Your task to perform on an android device: see sites visited before in the chrome app Image 0: 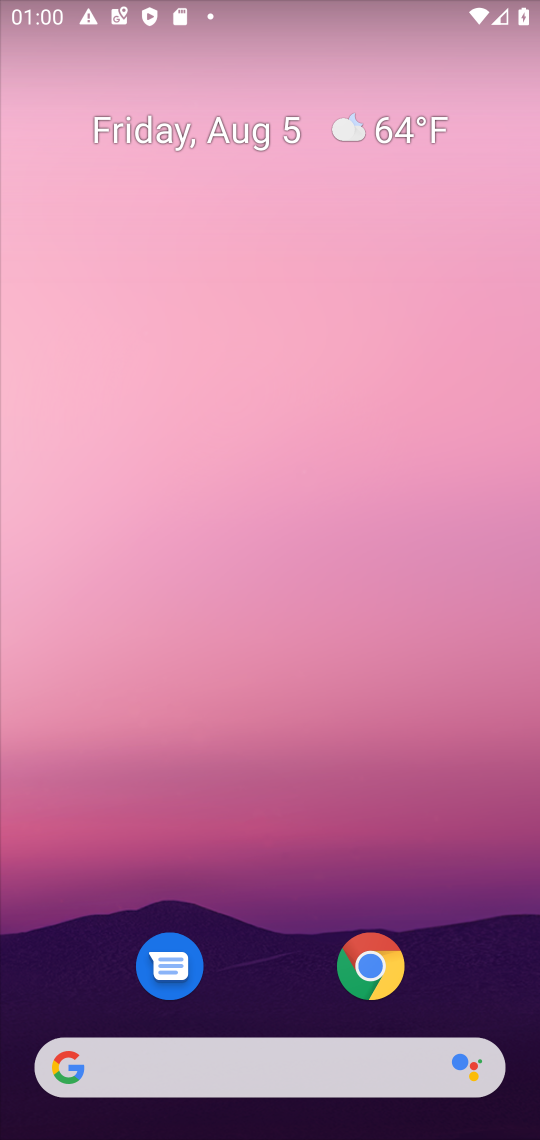
Step 0: click (371, 961)
Your task to perform on an android device: see sites visited before in the chrome app Image 1: 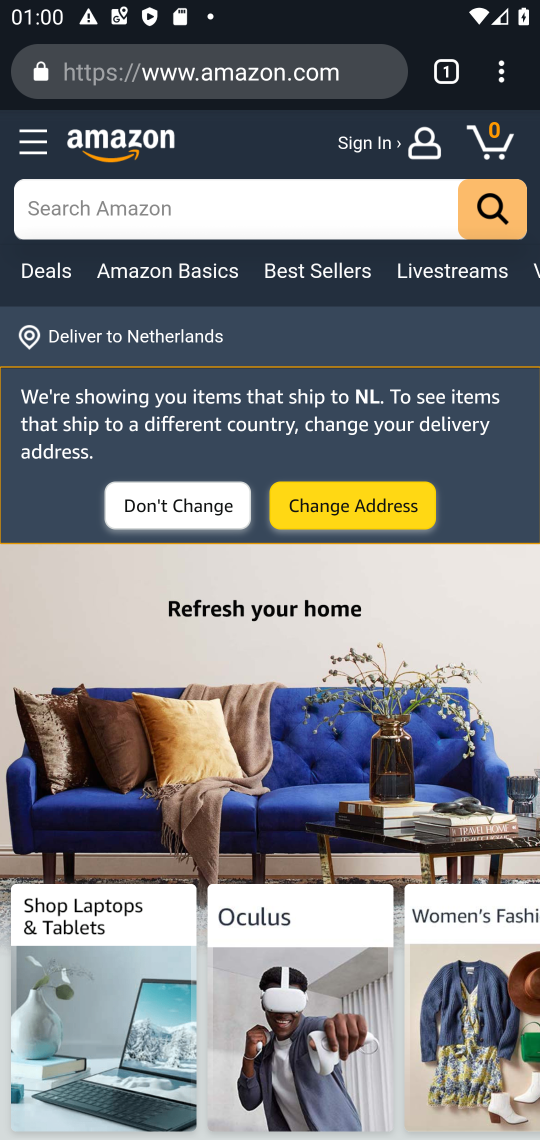
Step 1: click (495, 69)
Your task to perform on an android device: see sites visited before in the chrome app Image 2: 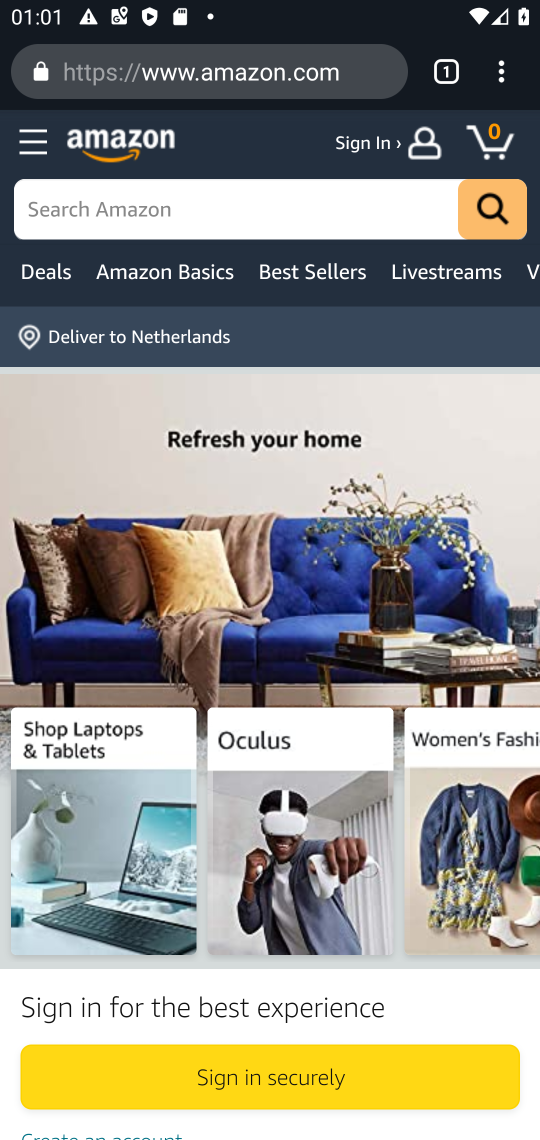
Step 2: click (507, 73)
Your task to perform on an android device: see sites visited before in the chrome app Image 3: 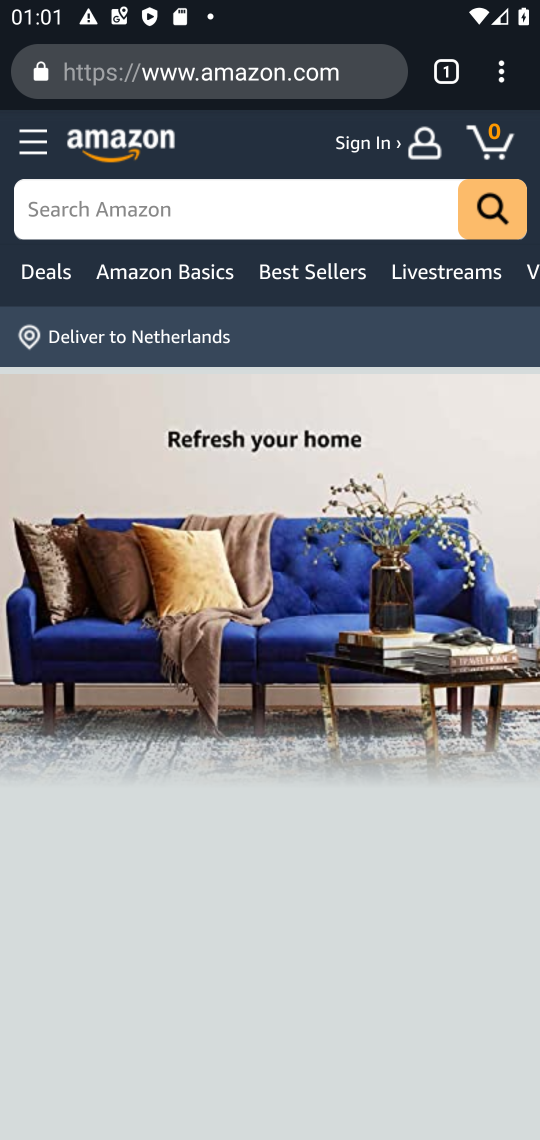
Step 3: click (507, 73)
Your task to perform on an android device: see sites visited before in the chrome app Image 4: 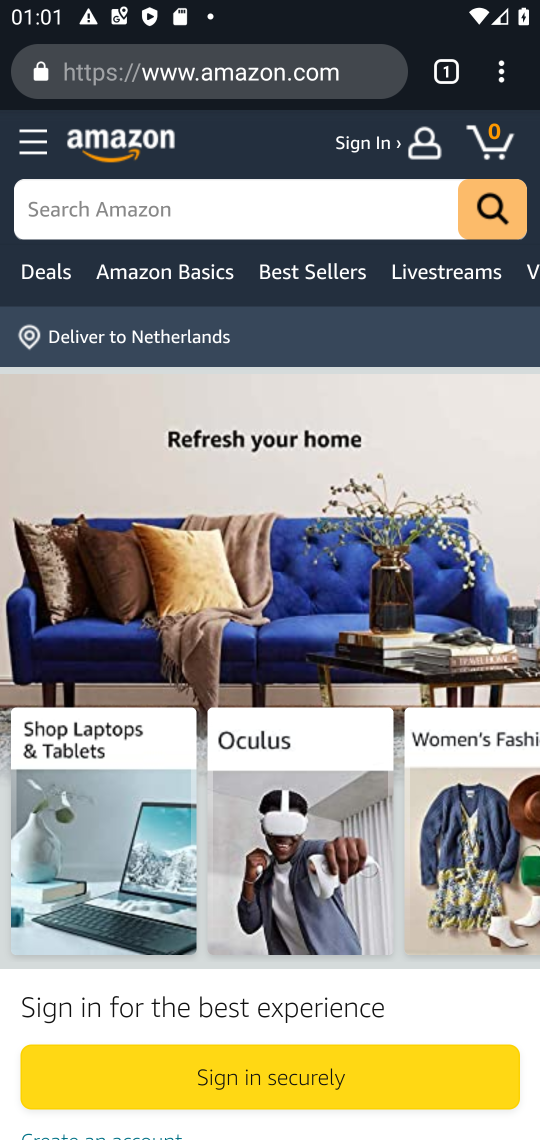
Step 4: click (507, 73)
Your task to perform on an android device: see sites visited before in the chrome app Image 5: 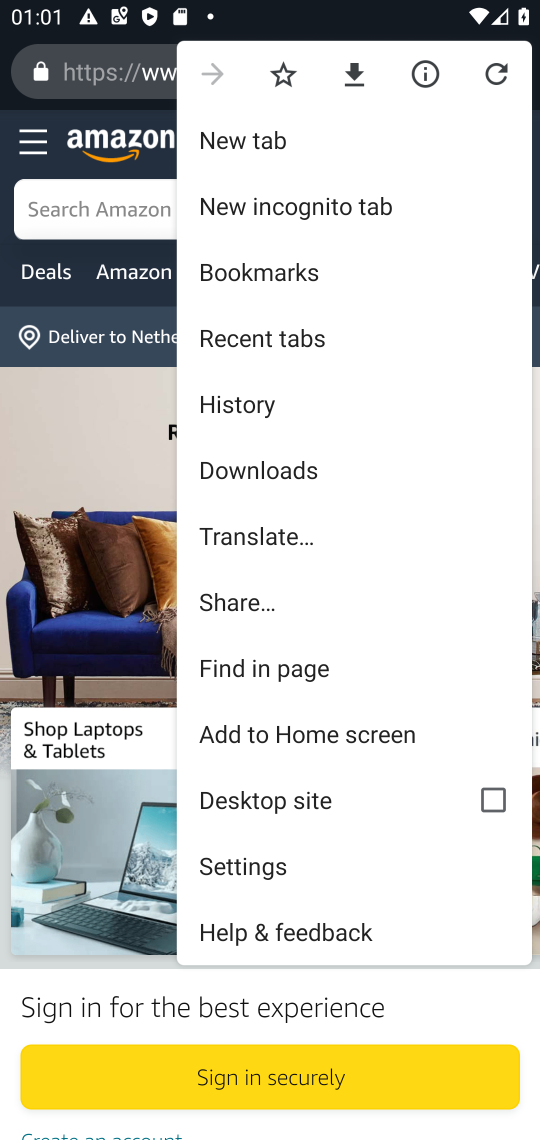
Step 5: click (303, 339)
Your task to perform on an android device: see sites visited before in the chrome app Image 6: 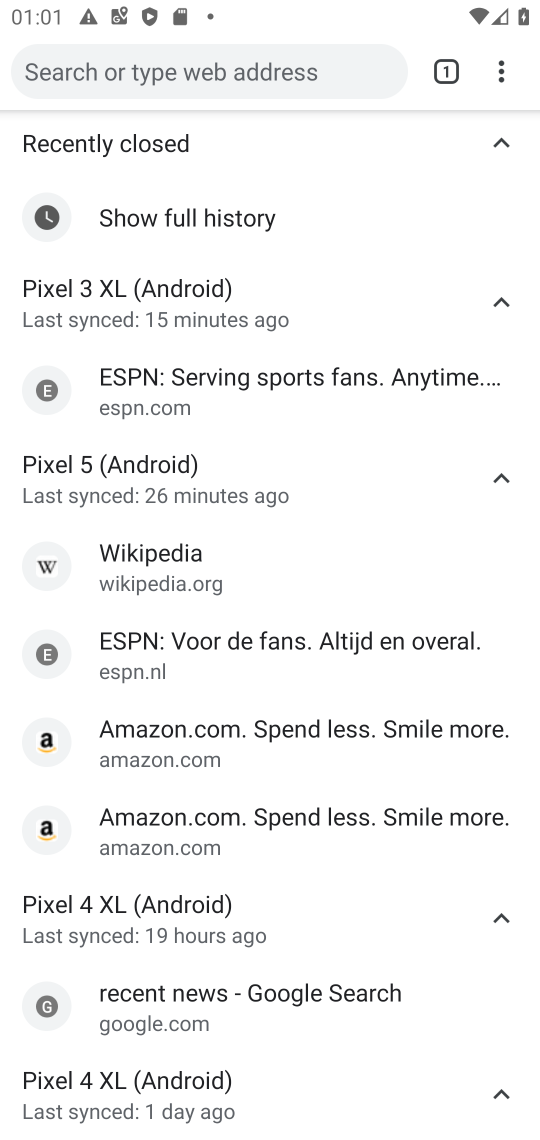
Step 6: task complete